Your task to perform on an android device: change timer sound Image 0: 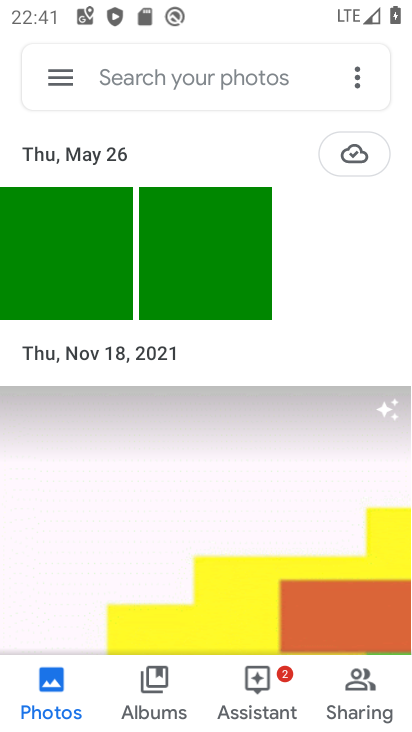
Step 0: press home button
Your task to perform on an android device: change timer sound Image 1: 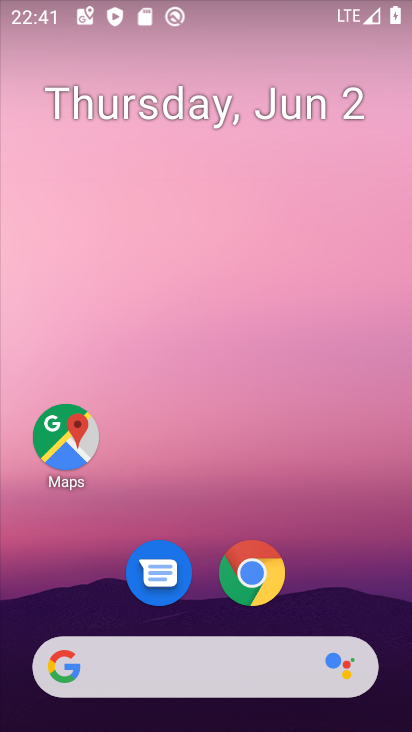
Step 1: drag from (326, 572) to (395, 147)
Your task to perform on an android device: change timer sound Image 2: 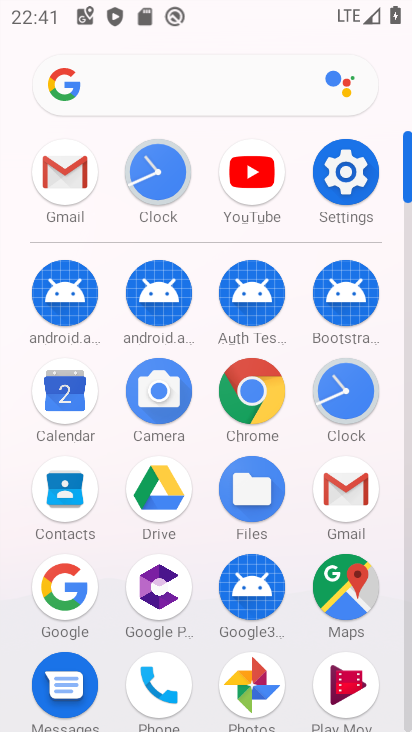
Step 2: click (346, 396)
Your task to perform on an android device: change timer sound Image 3: 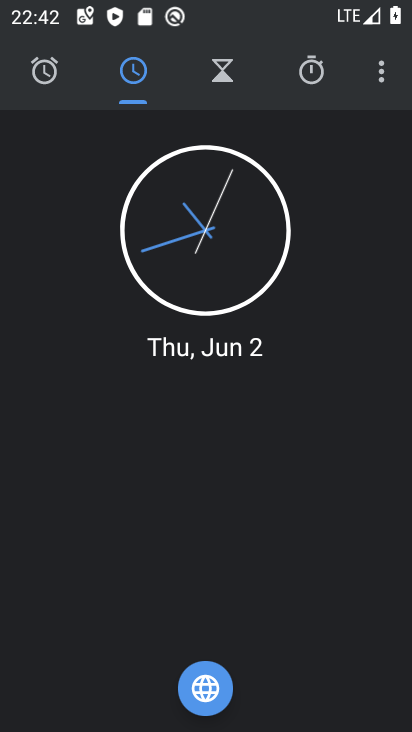
Step 3: click (382, 83)
Your task to perform on an android device: change timer sound Image 4: 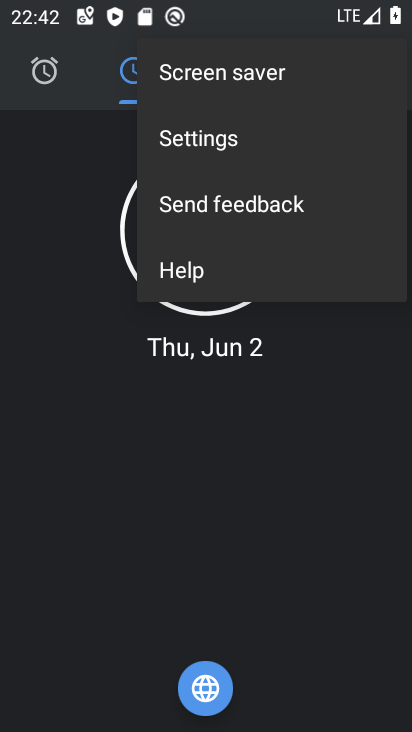
Step 4: click (207, 142)
Your task to perform on an android device: change timer sound Image 5: 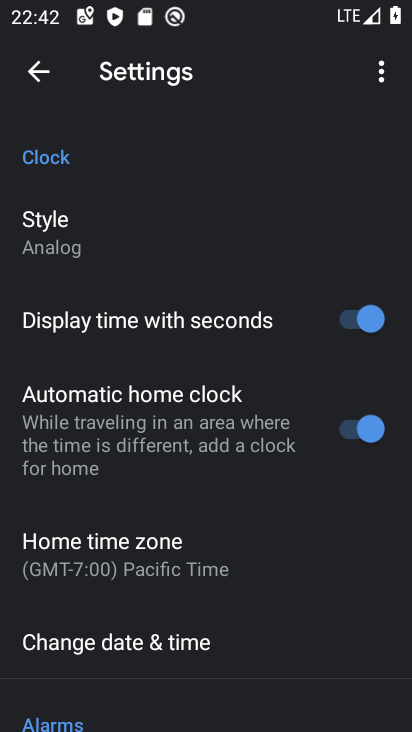
Step 5: drag from (247, 632) to (246, 244)
Your task to perform on an android device: change timer sound Image 6: 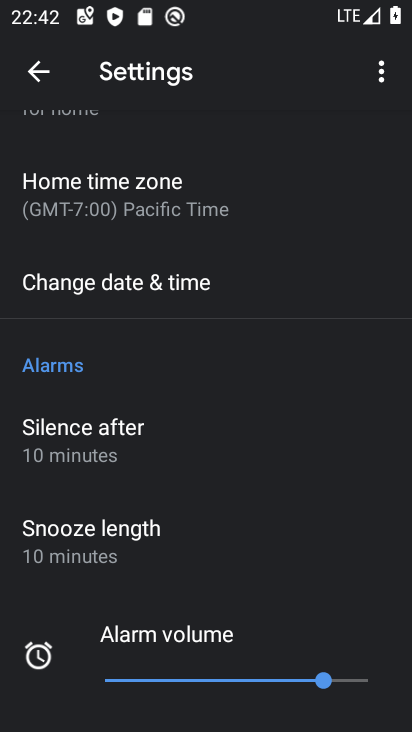
Step 6: drag from (260, 543) to (294, 141)
Your task to perform on an android device: change timer sound Image 7: 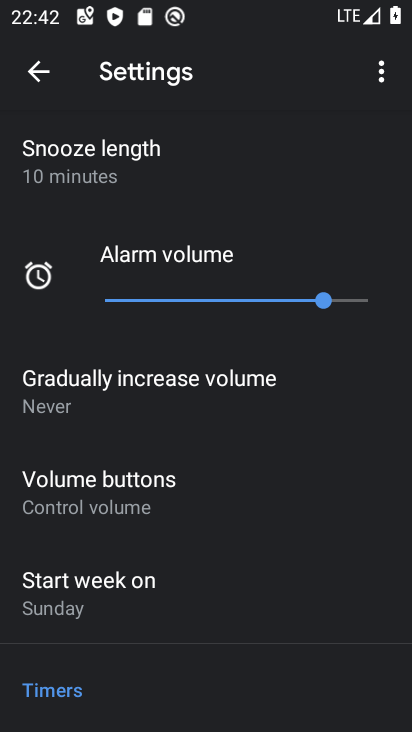
Step 7: click (231, 284)
Your task to perform on an android device: change timer sound Image 8: 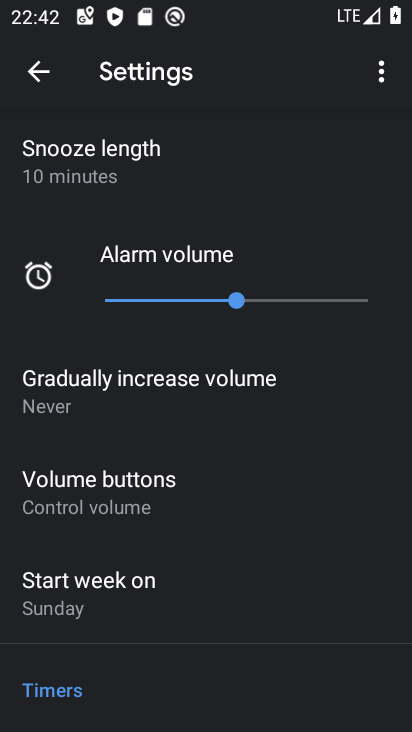
Step 8: drag from (251, 640) to (272, 205)
Your task to perform on an android device: change timer sound Image 9: 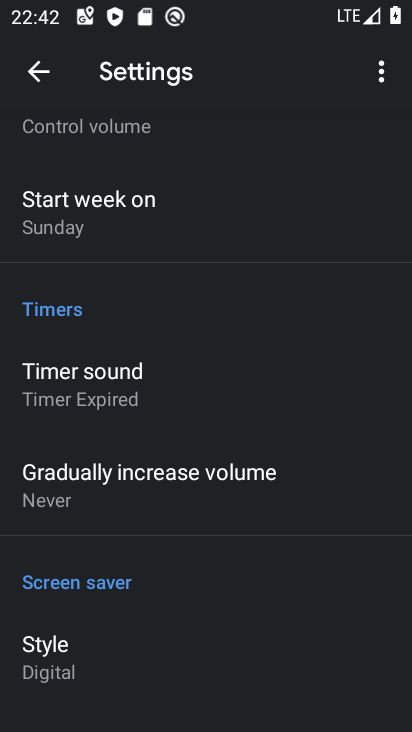
Step 9: click (119, 385)
Your task to perform on an android device: change timer sound Image 10: 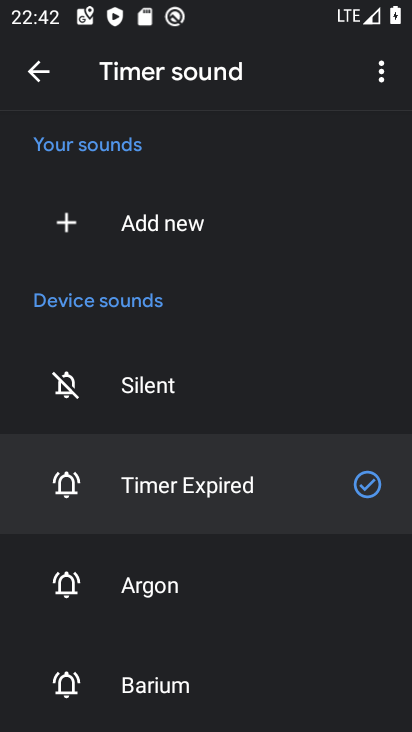
Step 10: click (159, 592)
Your task to perform on an android device: change timer sound Image 11: 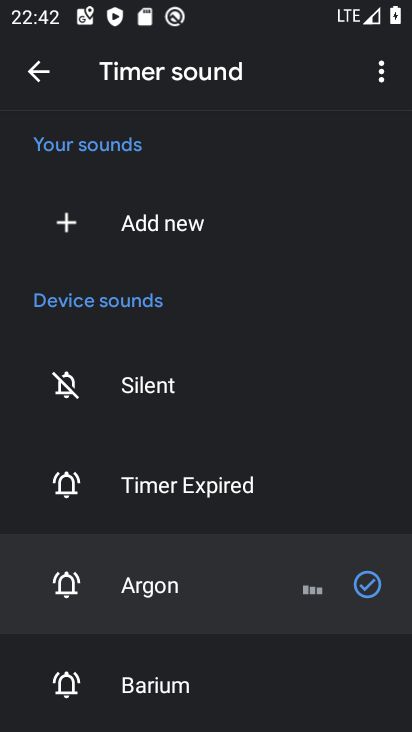
Step 11: task complete